Your task to perform on an android device: toggle sleep mode Image 0: 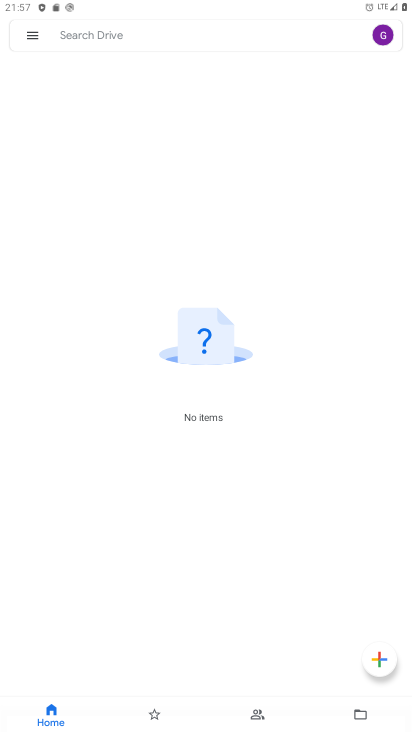
Step 0: press home button
Your task to perform on an android device: toggle sleep mode Image 1: 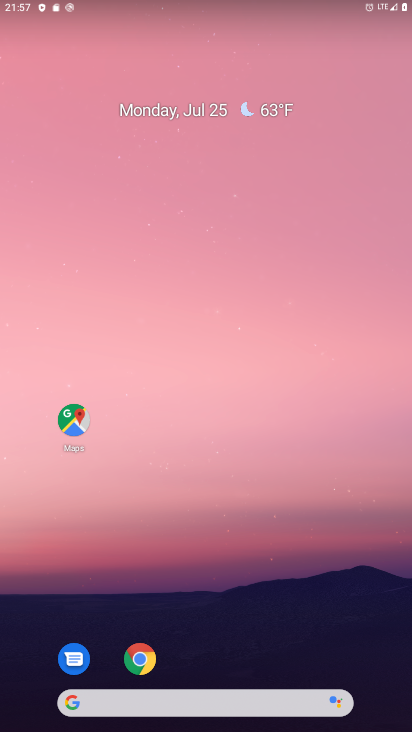
Step 1: drag from (210, 645) to (368, 6)
Your task to perform on an android device: toggle sleep mode Image 2: 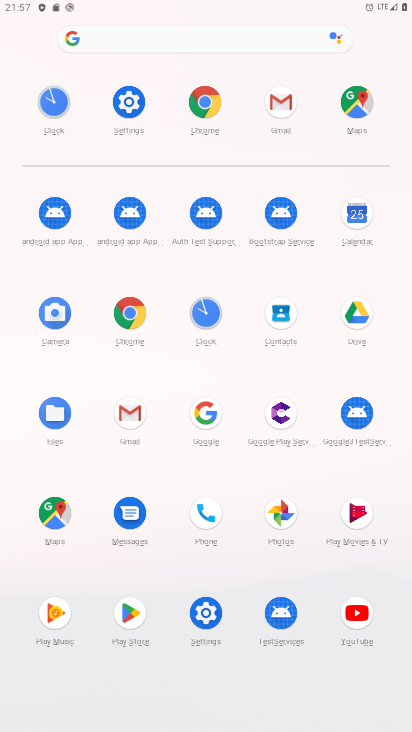
Step 2: click (130, 103)
Your task to perform on an android device: toggle sleep mode Image 3: 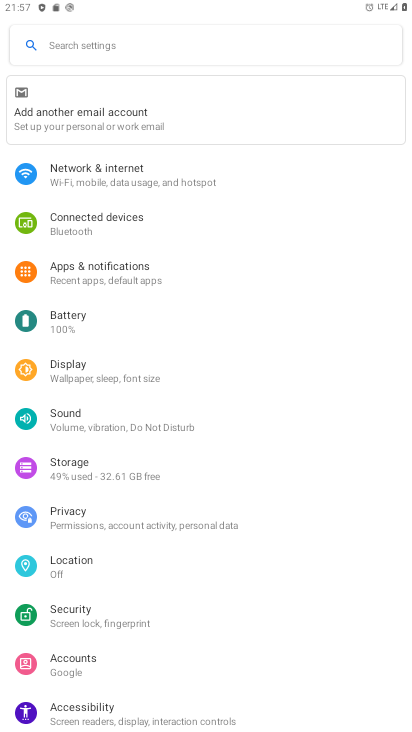
Step 3: click (106, 381)
Your task to perform on an android device: toggle sleep mode Image 4: 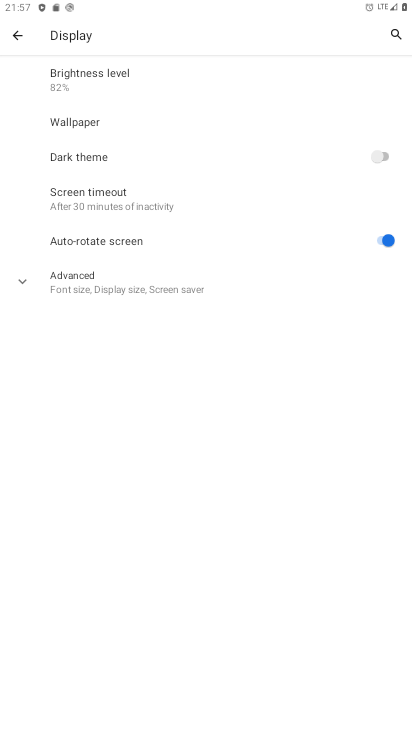
Step 4: task complete